Your task to perform on an android device: open a bookmark in the chrome app Image 0: 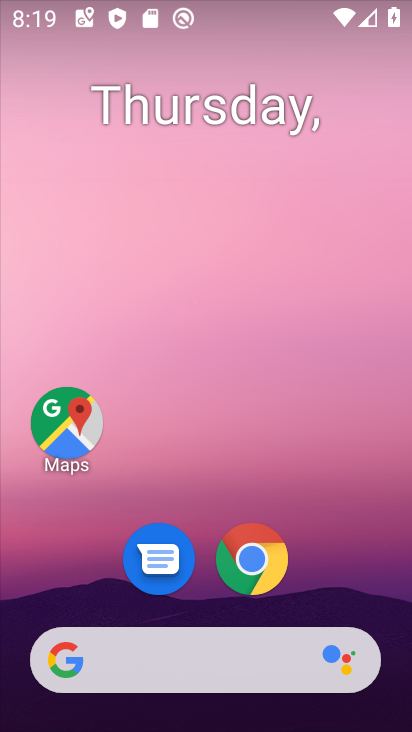
Step 0: click (257, 556)
Your task to perform on an android device: open a bookmark in the chrome app Image 1: 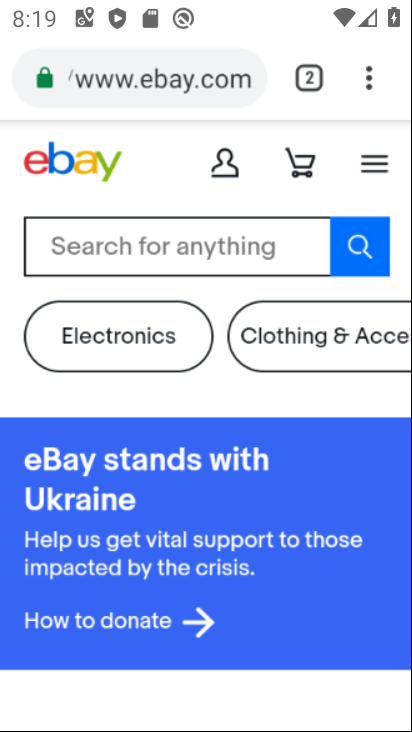
Step 1: click (365, 78)
Your task to perform on an android device: open a bookmark in the chrome app Image 2: 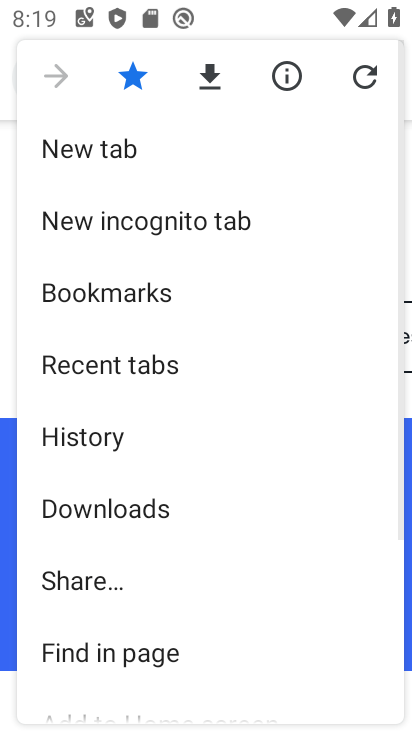
Step 2: click (99, 293)
Your task to perform on an android device: open a bookmark in the chrome app Image 3: 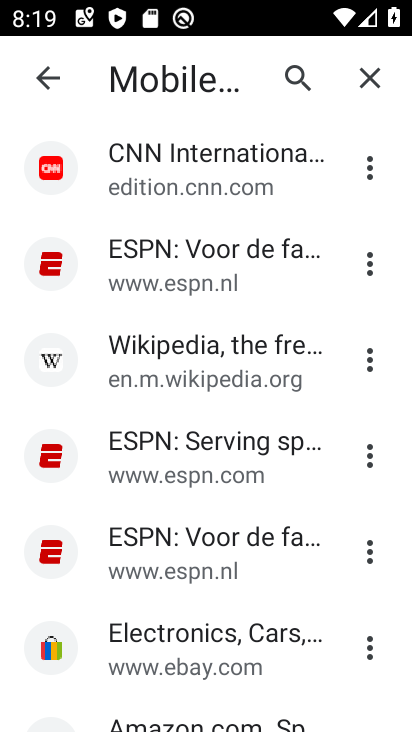
Step 3: task complete